Your task to perform on an android device: What's the weather going to be this weekend? Image 0: 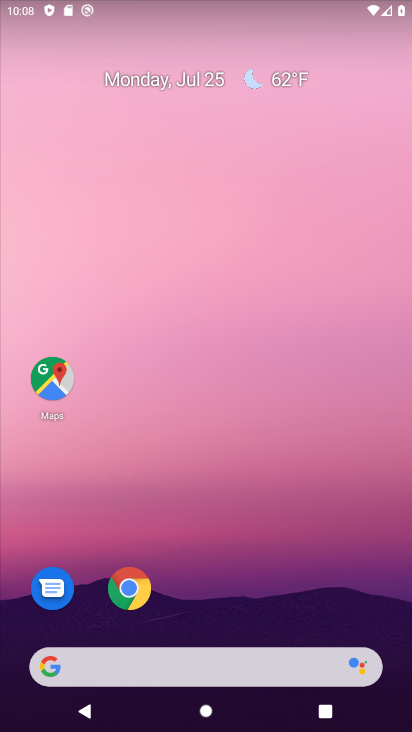
Step 0: drag from (259, 592) to (153, 98)
Your task to perform on an android device: What's the weather going to be this weekend? Image 1: 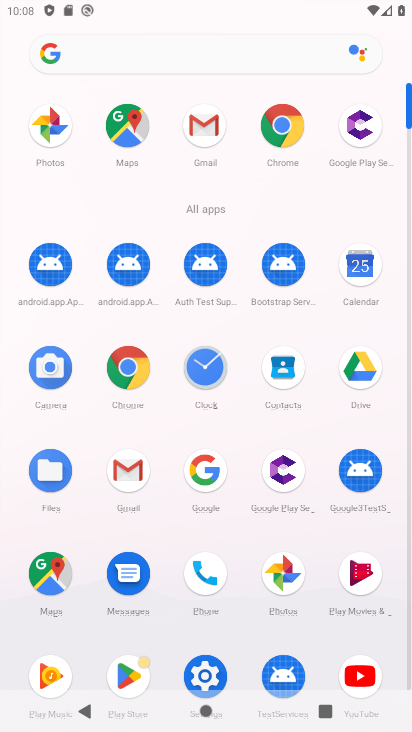
Step 1: click (118, 371)
Your task to perform on an android device: What's the weather going to be this weekend? Image 2: 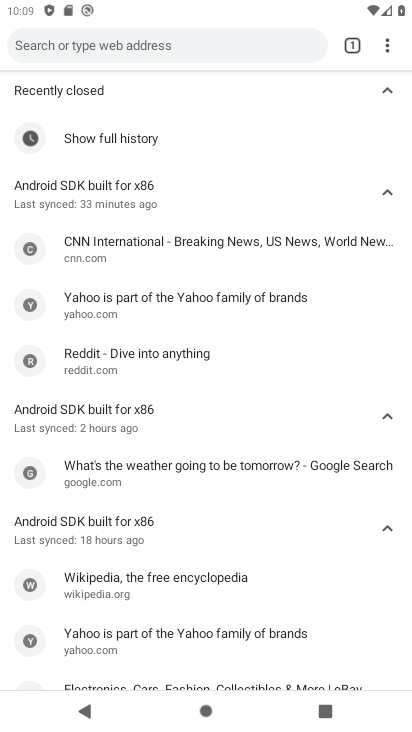
Step 2: task complete